Your task to perform on an android device: Is it going to rain this weekend? Image 0: 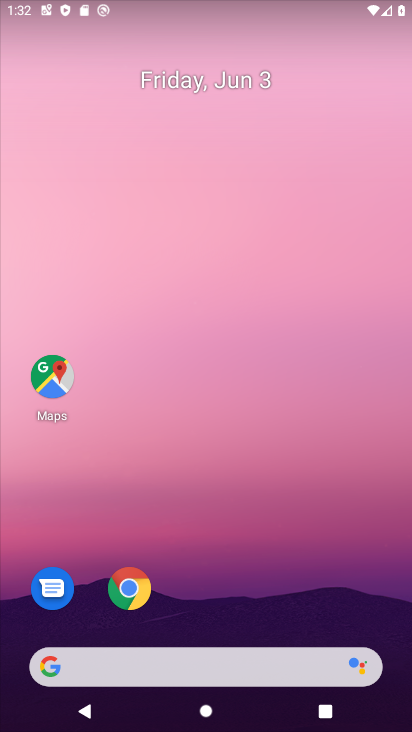
Step 0: click (97, 658)
Your task to perform on an android device: Is it going to rain this weekend? Image 1: 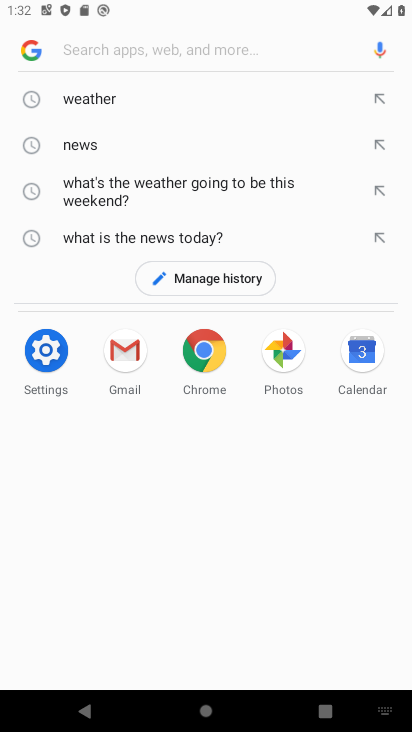
Step 1: click (80, 101)
Your task to perform on an android device: Is it going to rain this weekend? Image 2: 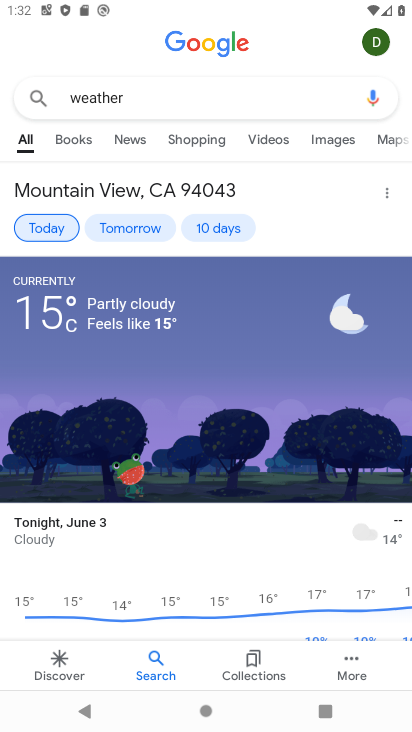
Step 2: click (240, 219)
Your task to perform on an android device: Is it going to rain this weekend? Image 3: 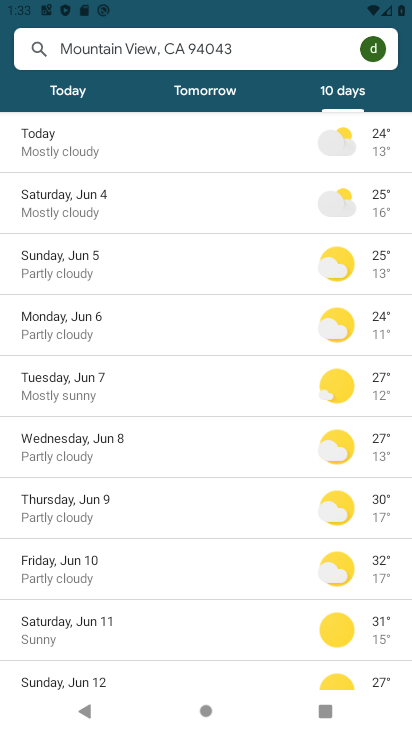
Step 3: task complete